Your task to perform on an android device: turn off improve location accuracy Image 0: 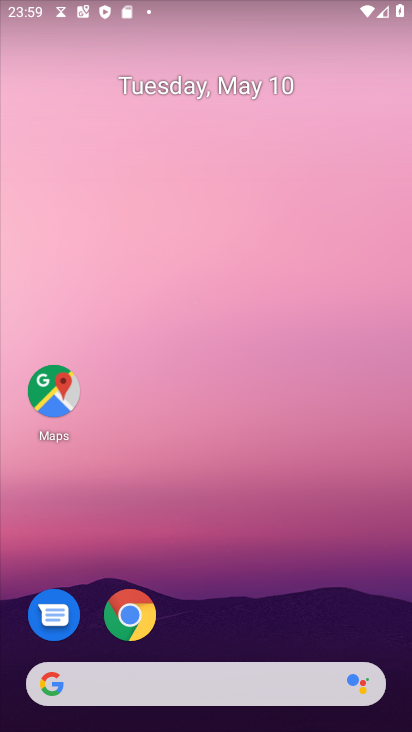
Step 0: drag from (297, 598) to (334, 83)
Your task to perform on an android device: turn off improve location accuracy Image 1: 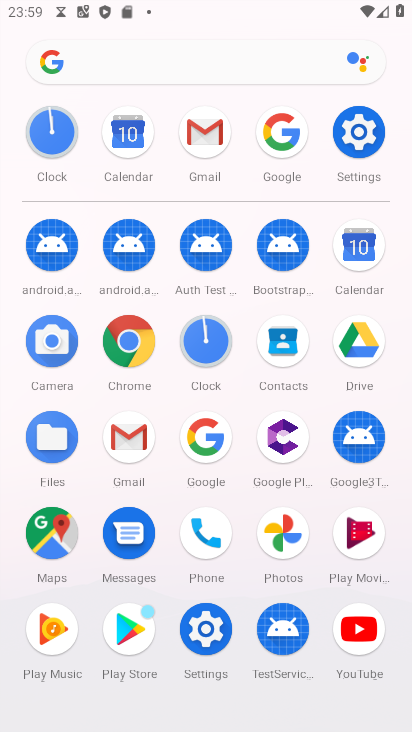
Step 1: click (361, 131)
Your task to perform on an android device: turn off improve location accuracy Image 2: 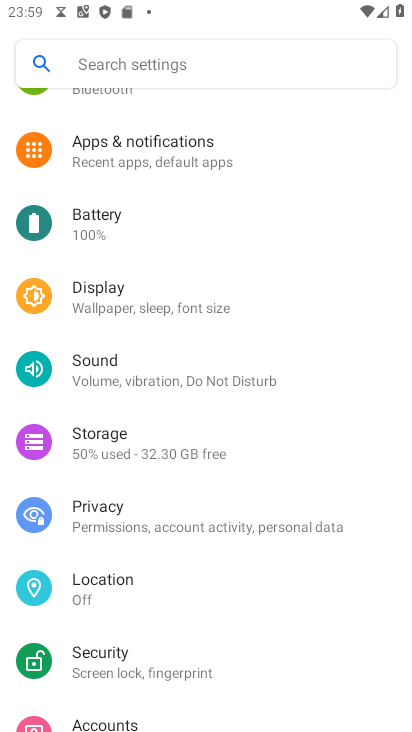
Step 2: click (110, 575)
Your task to perform on an android device: turn off improve location accuracy Image 3: 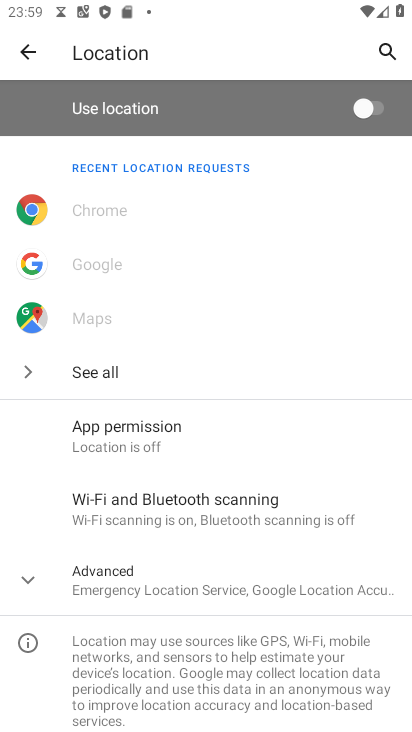
Step 3: click (142, 579)
Your task to perform on an android device: turn off improve location accuracy Image 4: 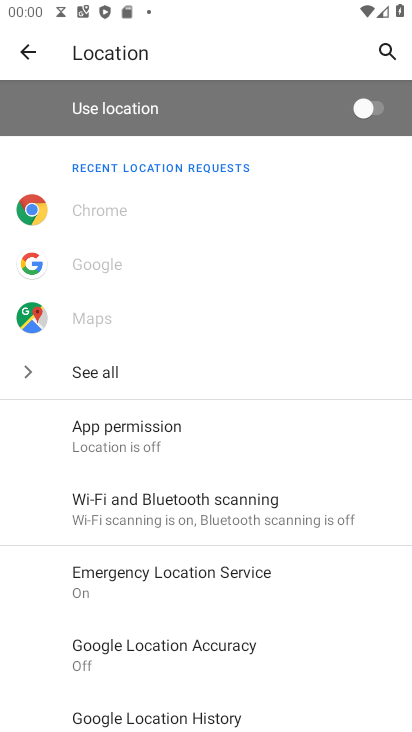
Step 4: click (170, 640)
Your task to perform on an android device: turn off improve location accuracy Image 5: 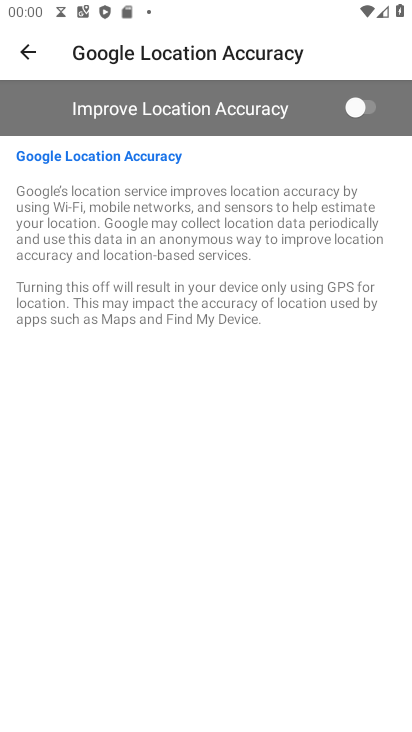
Step 5: task complete